Your task to perform on an android device: Search for the best movies of 2019  Image 0: 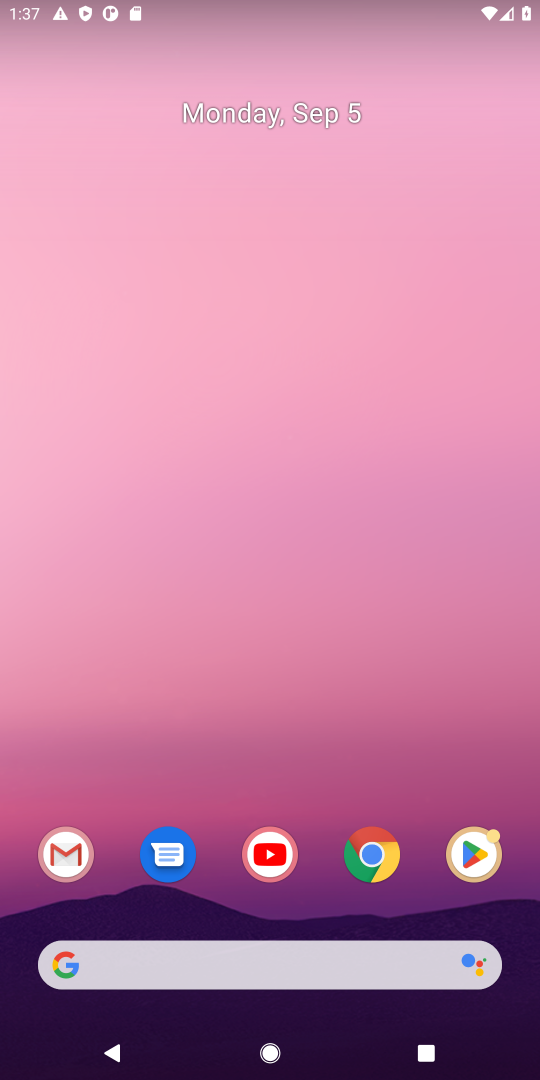
Step 0: click (396, 954)
Your task to perform on an android device: Search for the best movies of 2019  Image 1: 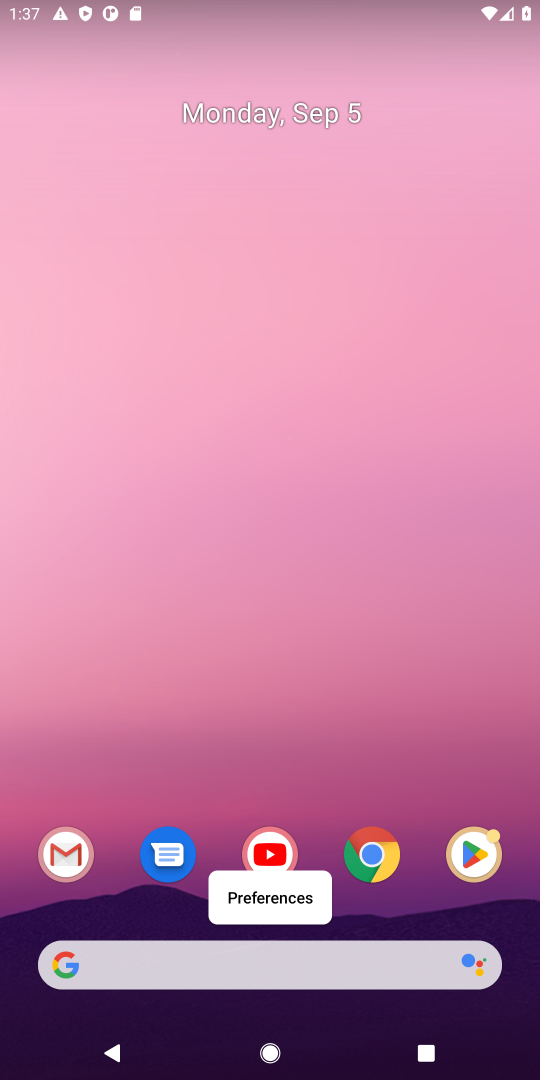
Step 1: click (247, 962)
Your task to perform on an android device: Search for the best movies of 2019  Image 2: 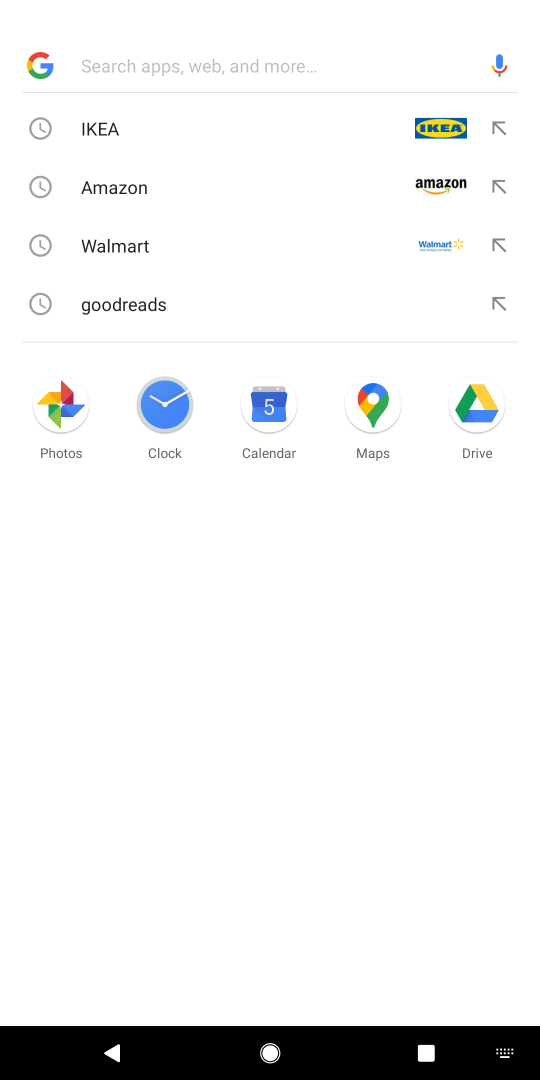
Step 2: press enter
Your task to perform on an android device: Search for the best movies of 2019  Image 3: 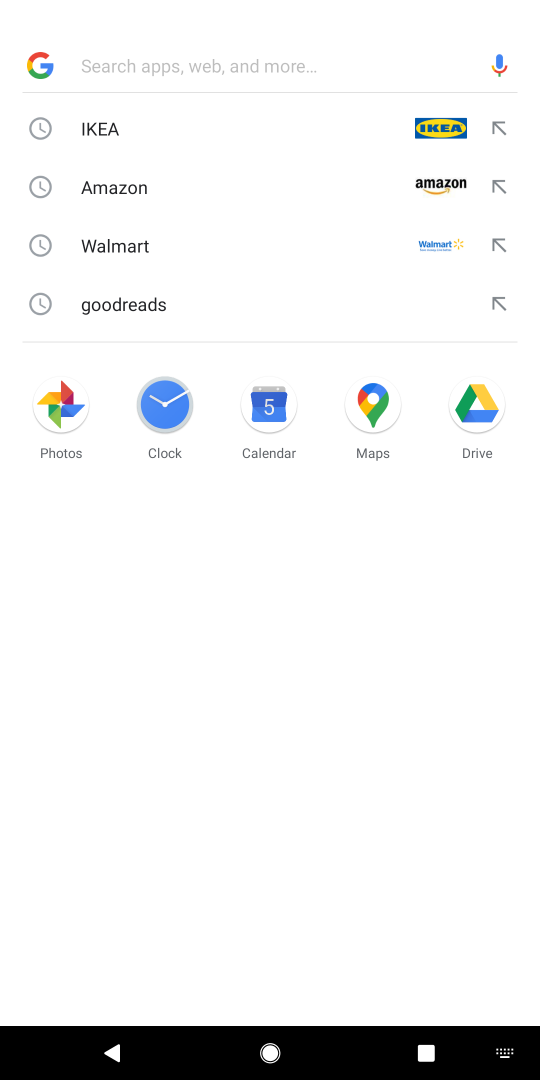
Step 3: type "best movies of 2019"
Your task to perform on an android device: Search for the best movies of 2019  Image 4: 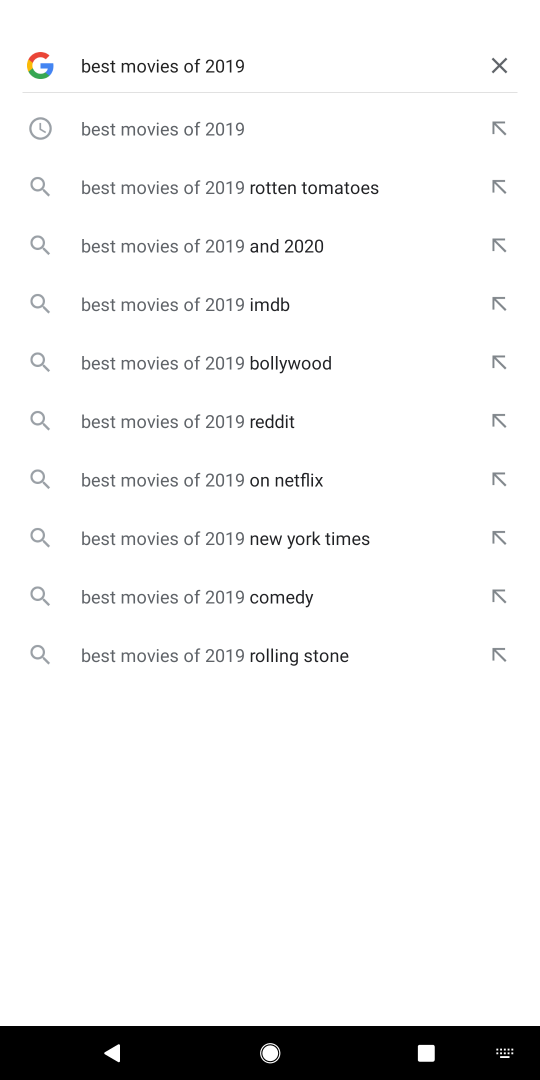
Step 4: click (229, 128)
Your task to perform on an android device: Search for the best movies of 2019  Image 5: 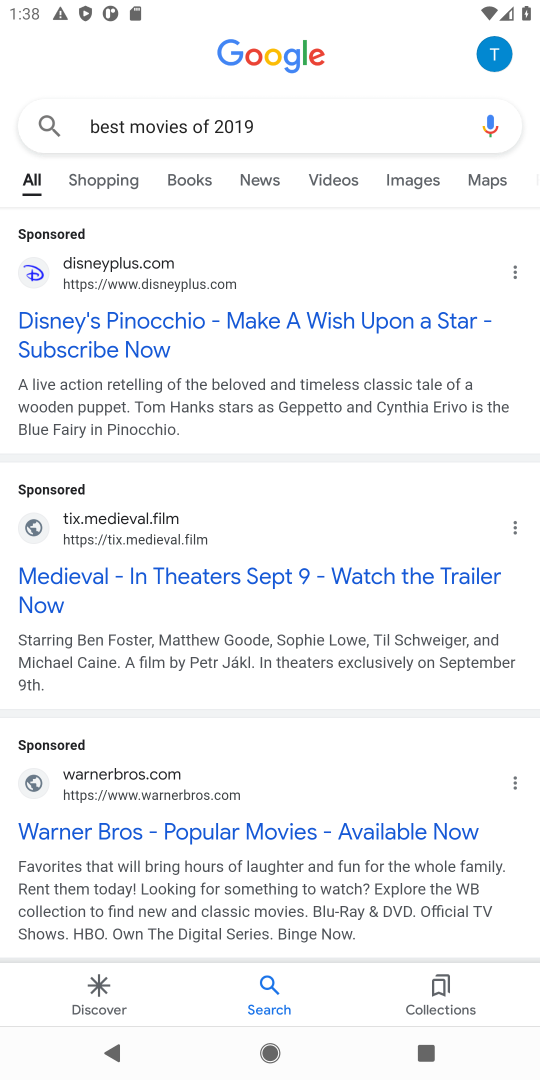
Step 5: task complete